Your task to perform on an android device: manage bookmarks in the chrome app Image 0: 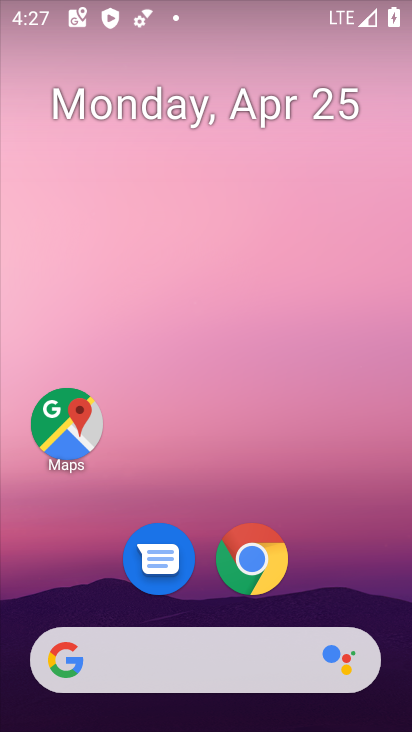
Step 0: click (253, 558)
Your task to perform on an android device: manage bookmarks in the chrome app Image 1: 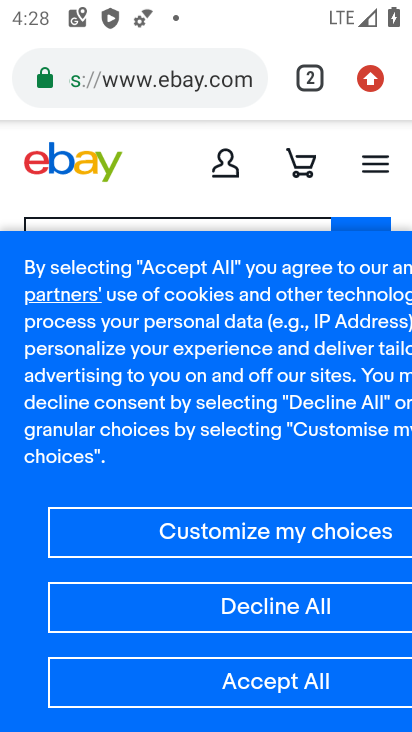
Step 1: click (371, 78)
Your task to perform on an android device: manage bookmarks in the chrome app Image 2: 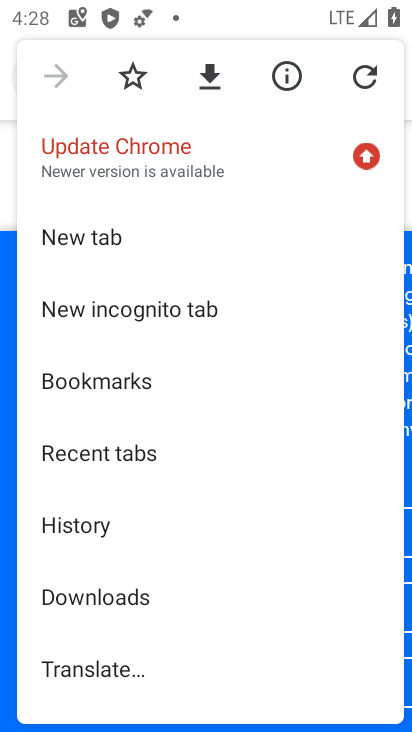
Step 2: click (118, 382)
Your task to perform on an android device: manage bookmarks in the chrome app Image 3: 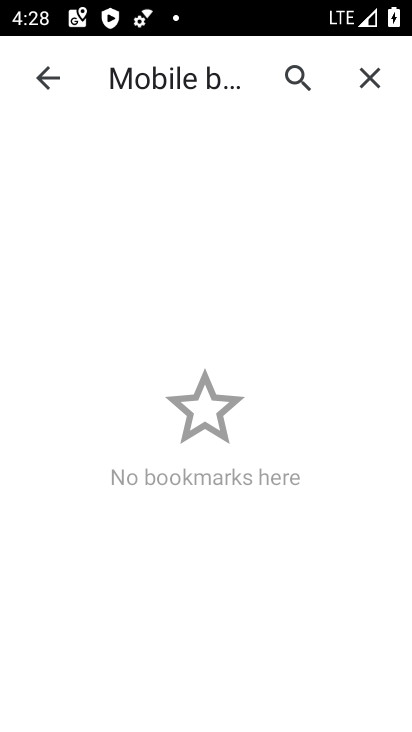
Step 3: task complete